Your task to perform on an android device: Go to Reddit.com Image 0: 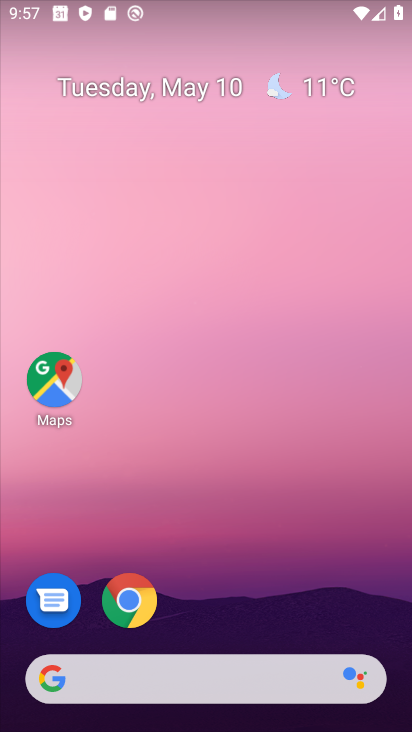
Step 0: click (128, 614)
Your task to perform on an android device: Go to Reddit.com Image 1: 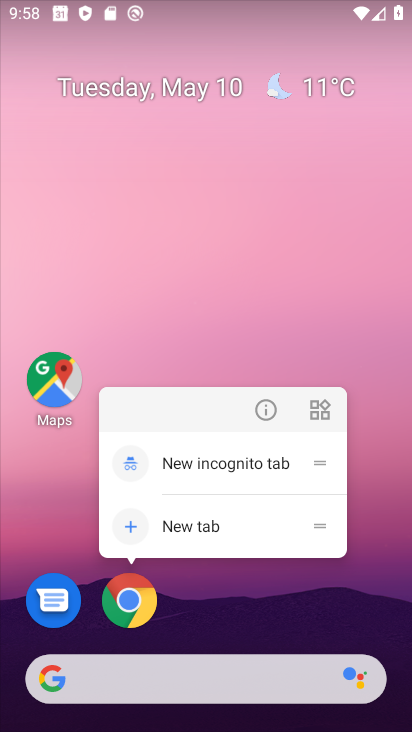
Step 1: click (144, 229)
Your task to perform on an android device: Go to Reddit.com Image 2: 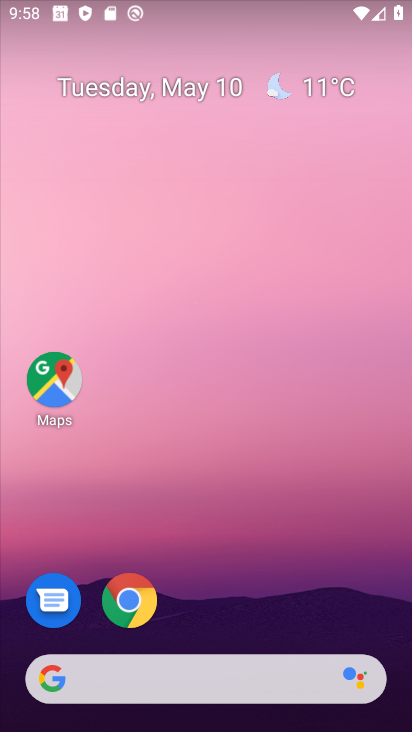
Step 2: click (293, 330)
Your task to perform on an android device: Go to Reddit.com Image 3: 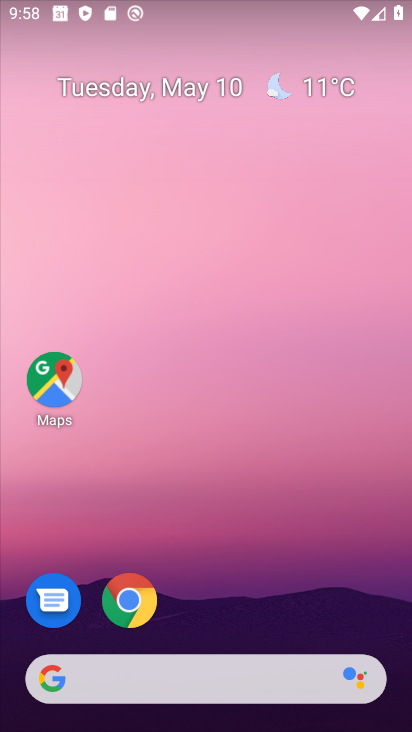
Step 3: drag from (298, 551) to (307, 20)
Your task to perform on an android device: Go to Reddit.com Image 4: 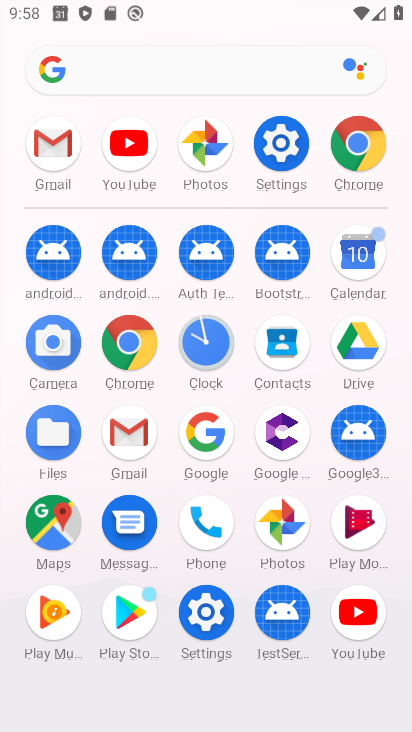
Step 4: click (340, 172)
Your task to perform on an android device: Go to Reddit.com Image 5: 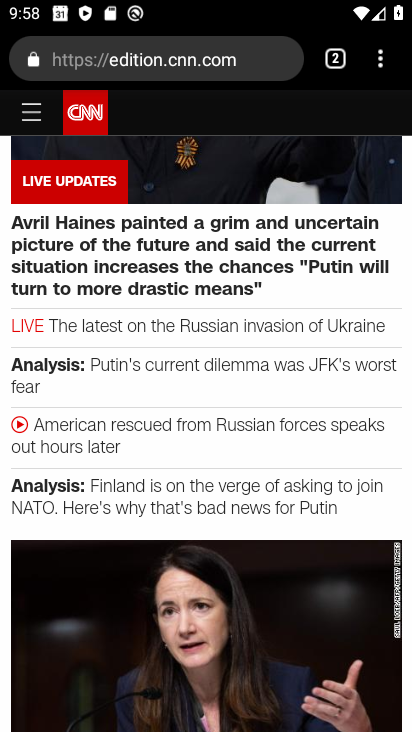
Step 5: click (215, 58)
Your task to perform on an android device: Go to Reddit.com Image 6: 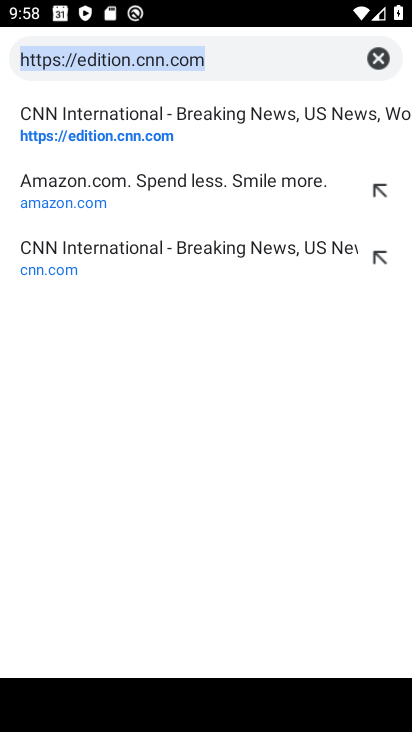
Step 6: click (374, 60)
Your task to perform on an android device: Go to Reddit.com Image 7: 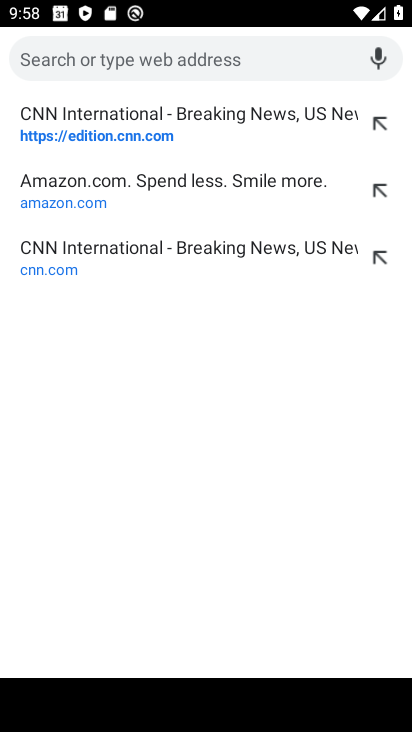
Step 7: type "reddit.com"
Your task to perform on an android device: Go to Reddit.com Image 8: 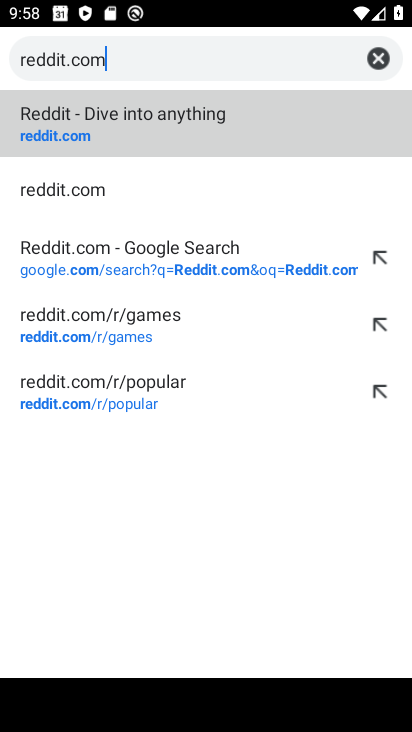
Step 8: click (64, 130)
Your task to perform on an android device: Go to Reddit.com Image 9: 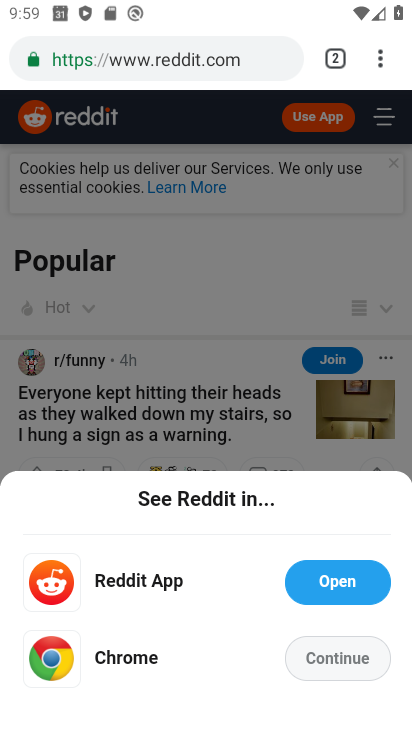
Step 9: task complete